Your task to perform on an android device: Search for vegetarian restaurants on Maps Image 0: 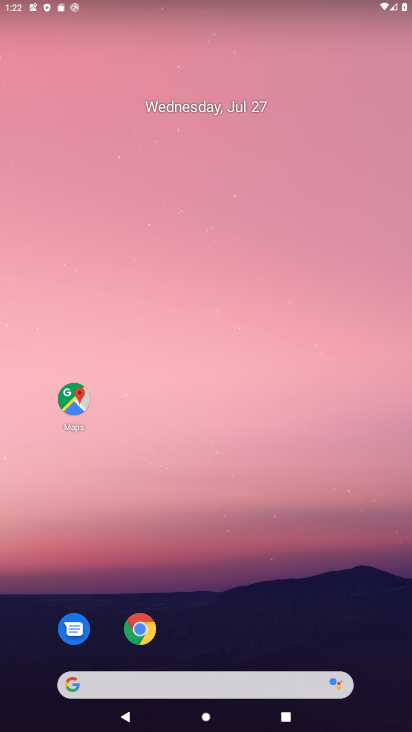
Step 0: click (77, 414)
Your task to perform on an android device: Search for vegetarian restaurants on Maps Image 1: 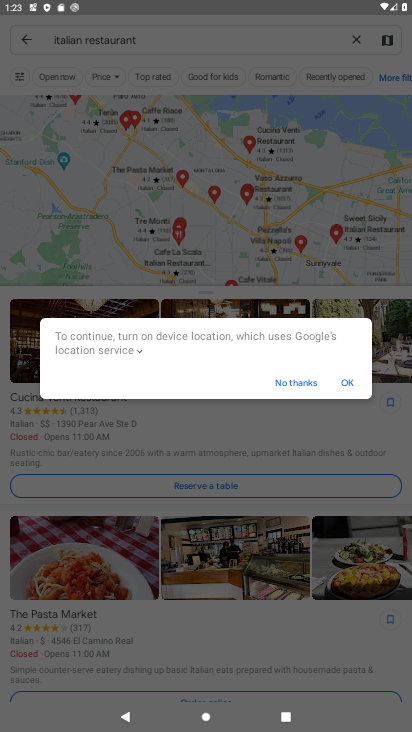
Step 1: click (310, 384)
Your task to perform on an android device: Search for vegetarian restaurants on Maps Image 2: 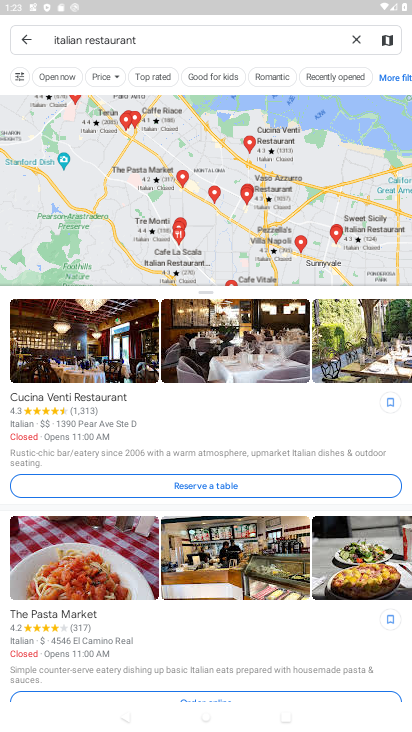
Step 2: click (355, 37)
Your task to perform on an android device: Search for vegetarian restaurants on Maps Image 3: 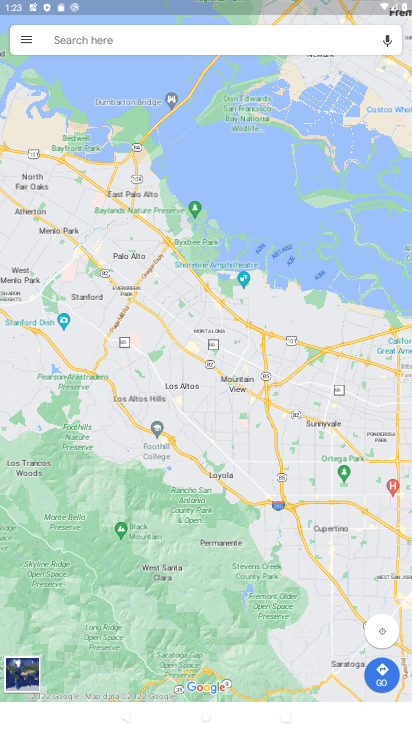
Step 3: click (273, 39)
Your task to perform on an android device: Search for vegetarian restaurants on Maps Image 4: 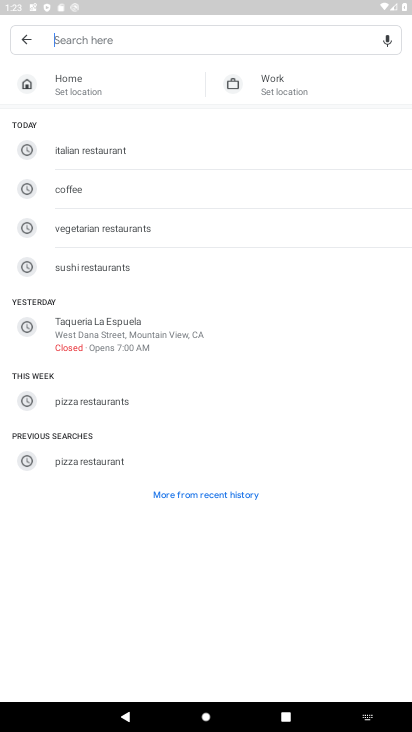
Step 4: click (143, 234)
Your task to perform on an android device: Search for vegetarian restaurants on Maps Image 5: 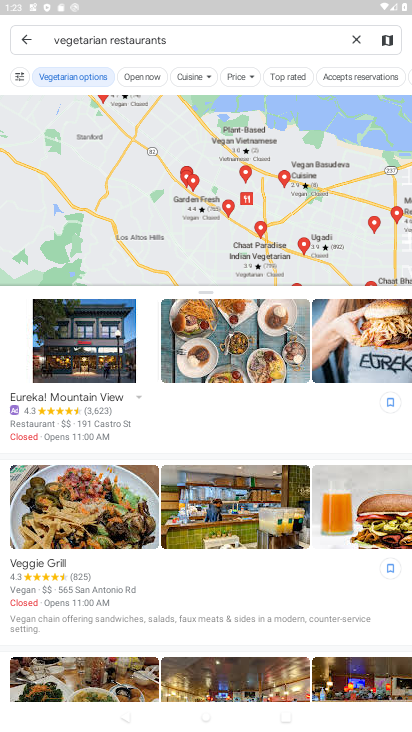
Step 5: task complete